Your task to perform on an android device: Check the news Image 0: 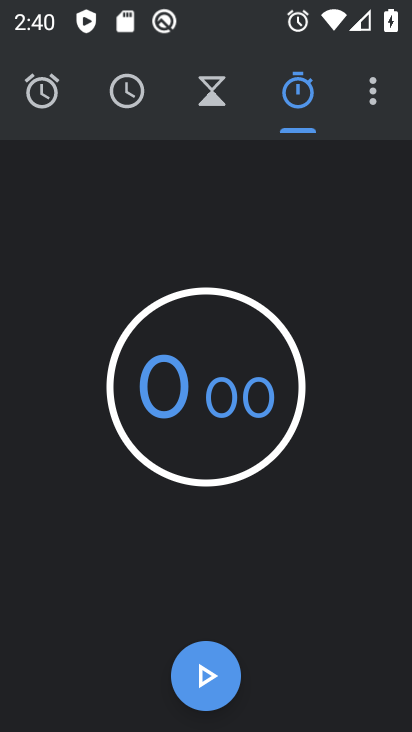
Step 0: press home button
Your task to perform on an android device: Check the news Image 1: 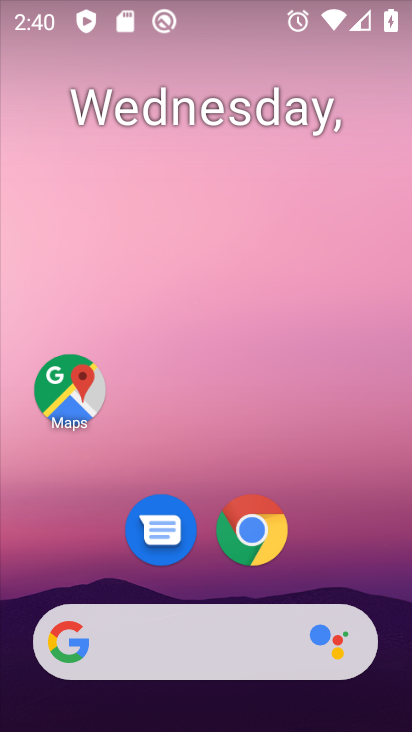
Step 1: task complete